Your task to perform on an android device: open app "McDonald's" (install if not already installed), go to login, and select forgot password Image 0: 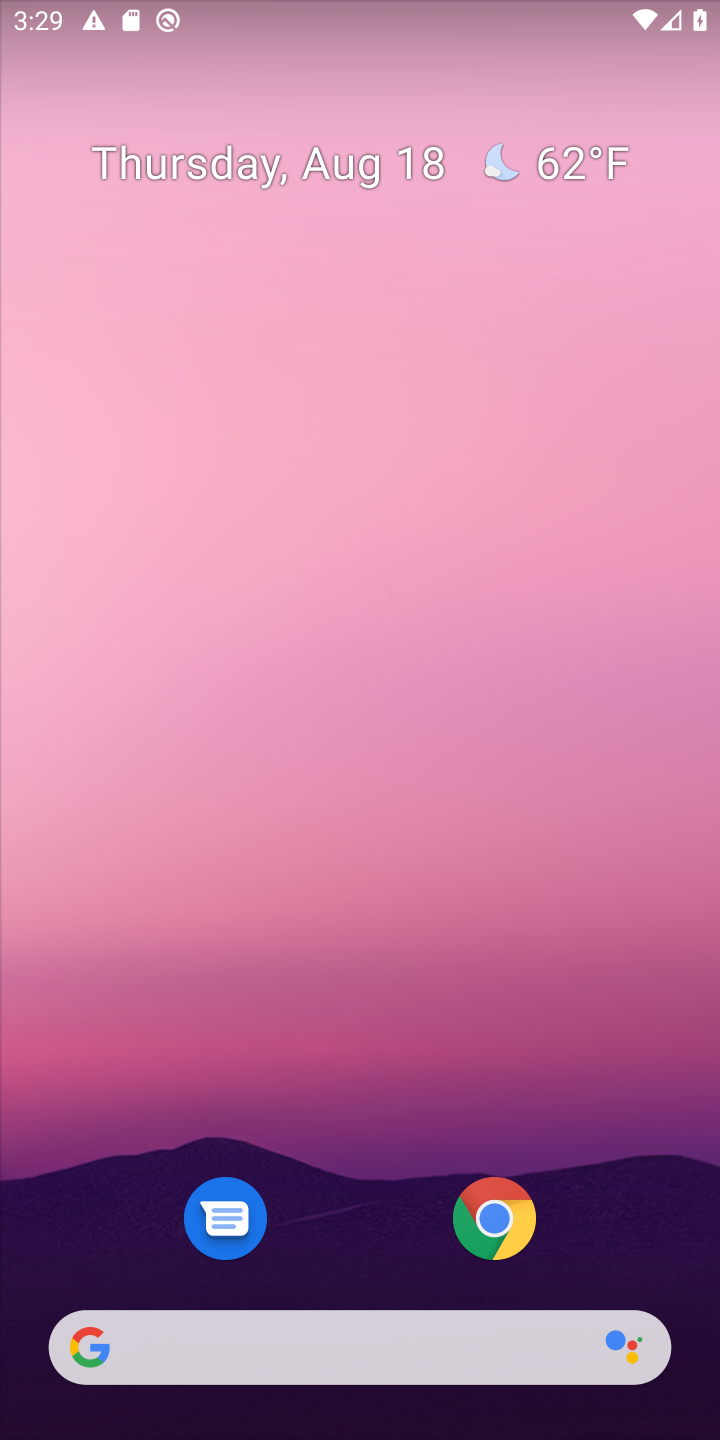
Step 0: drag from (350, 1144) to (362, 405)
Your task to perform on an android device: open app "McDonald's" (install if not already installed), go to login, and select forgot password Image 1: 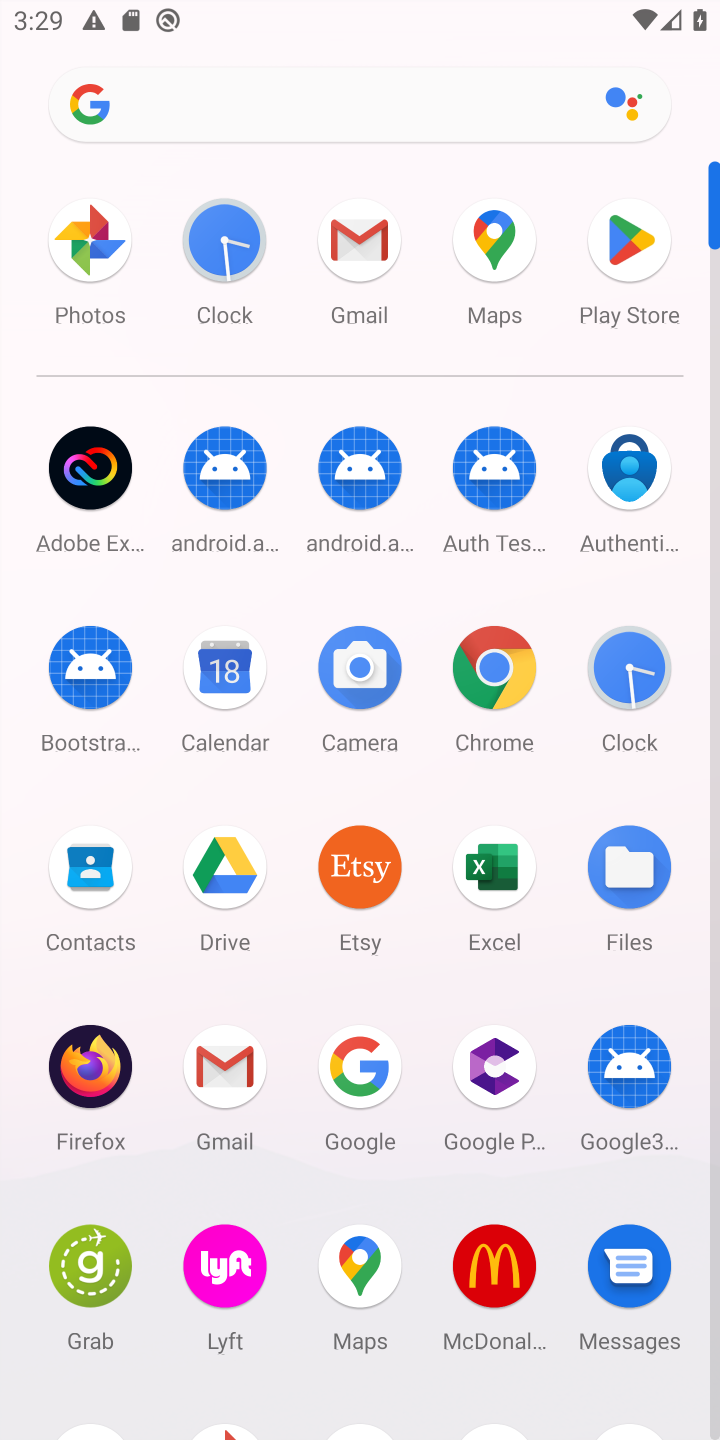
Step 1: click (600, 244)
Your task to perform on an android device: open app "McDonald's" (install if not already installed), go to login, and select forgot password Image 2: 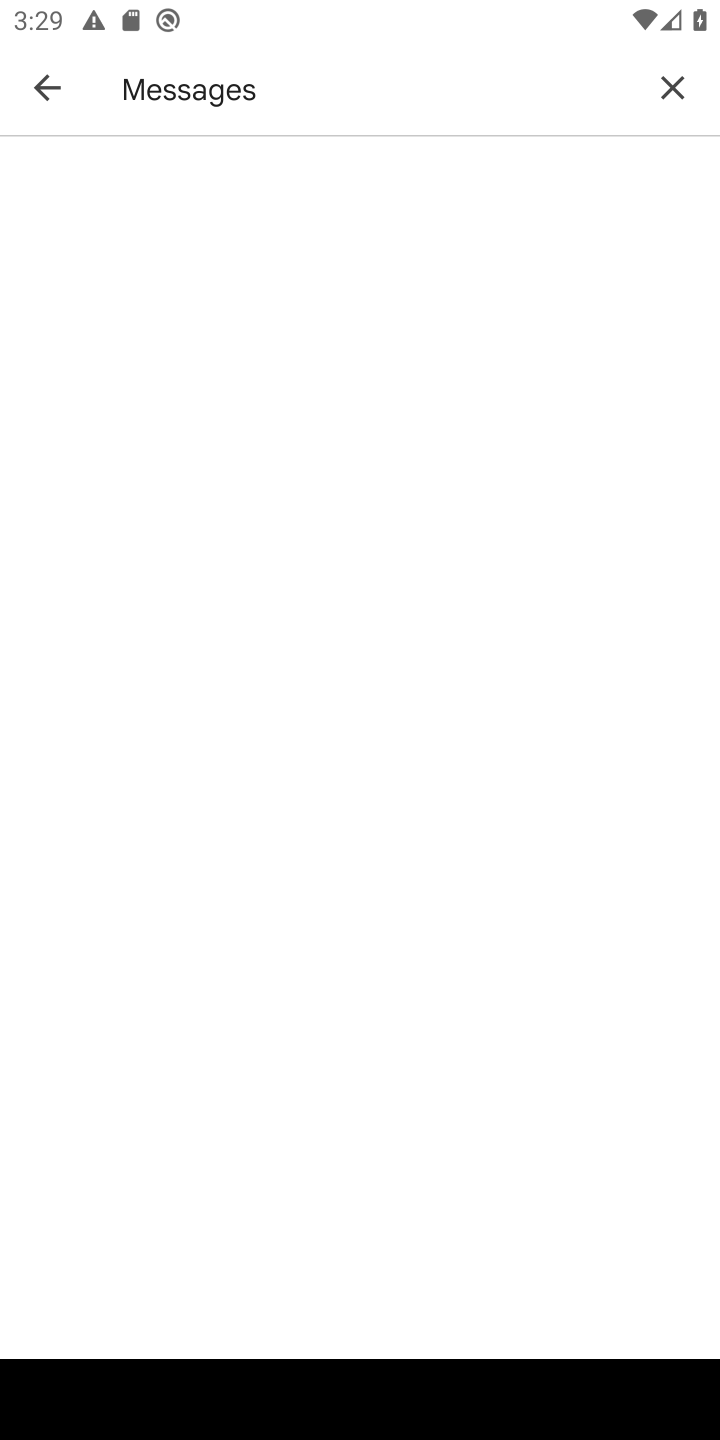
Step 2: click (660, 88)
Your task to perform on an android device: open app "McDonald's" (install if not already installed), go to login, and select forgot password Image 3: 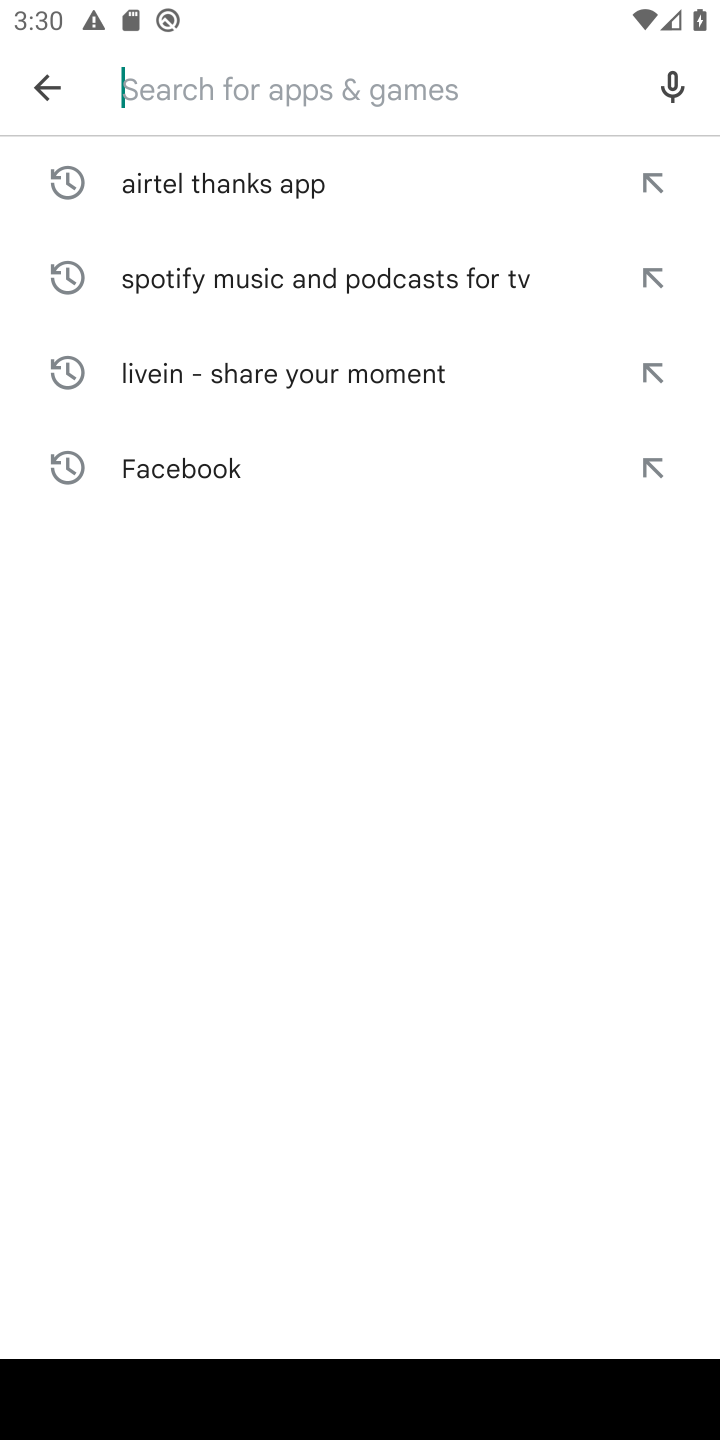
Step 3: type "McDonald's"
Your task to perform on an android device: open app "McDonald's" (install if not already installed), go to login, and select forgot password Image 4: 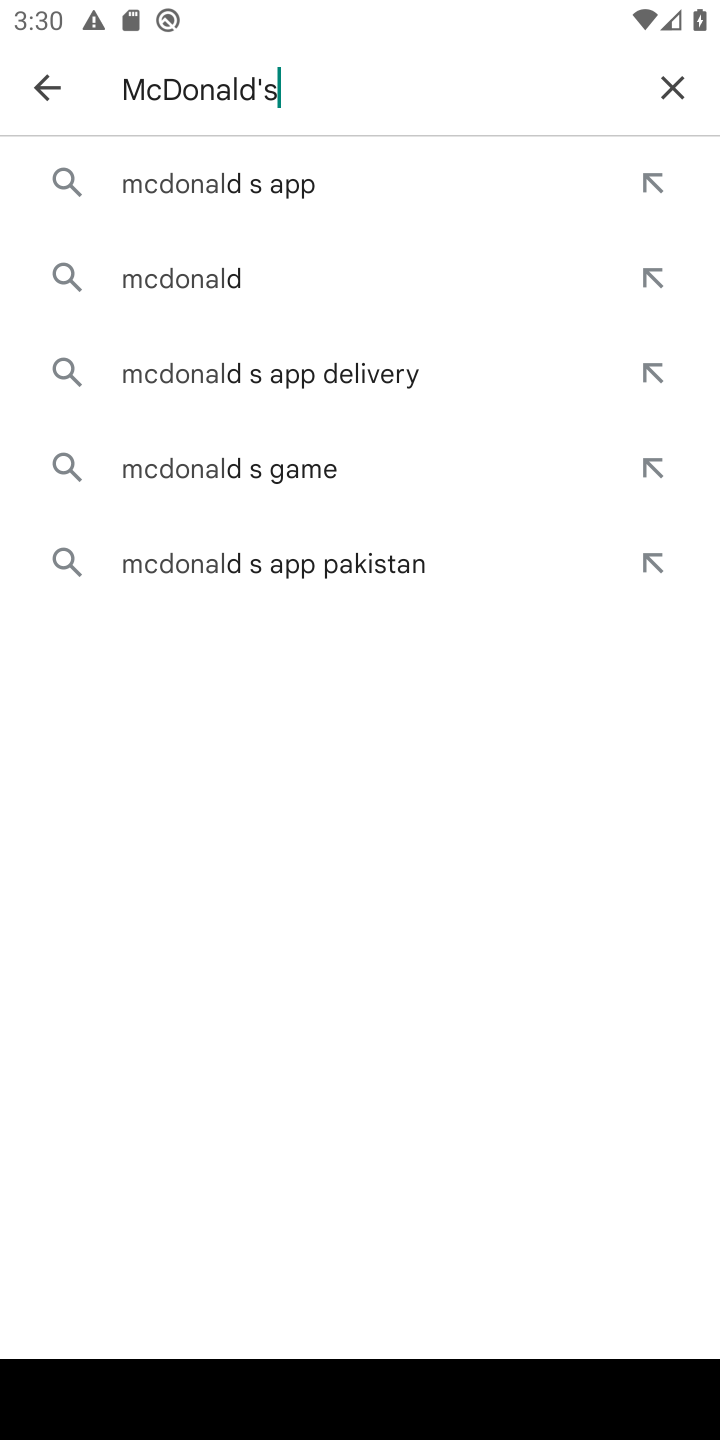
Step 4: type ""
Your task to perform on an android device: open app "McDonald's" (install if not already installed), go to login, and select forgot password Image 5: 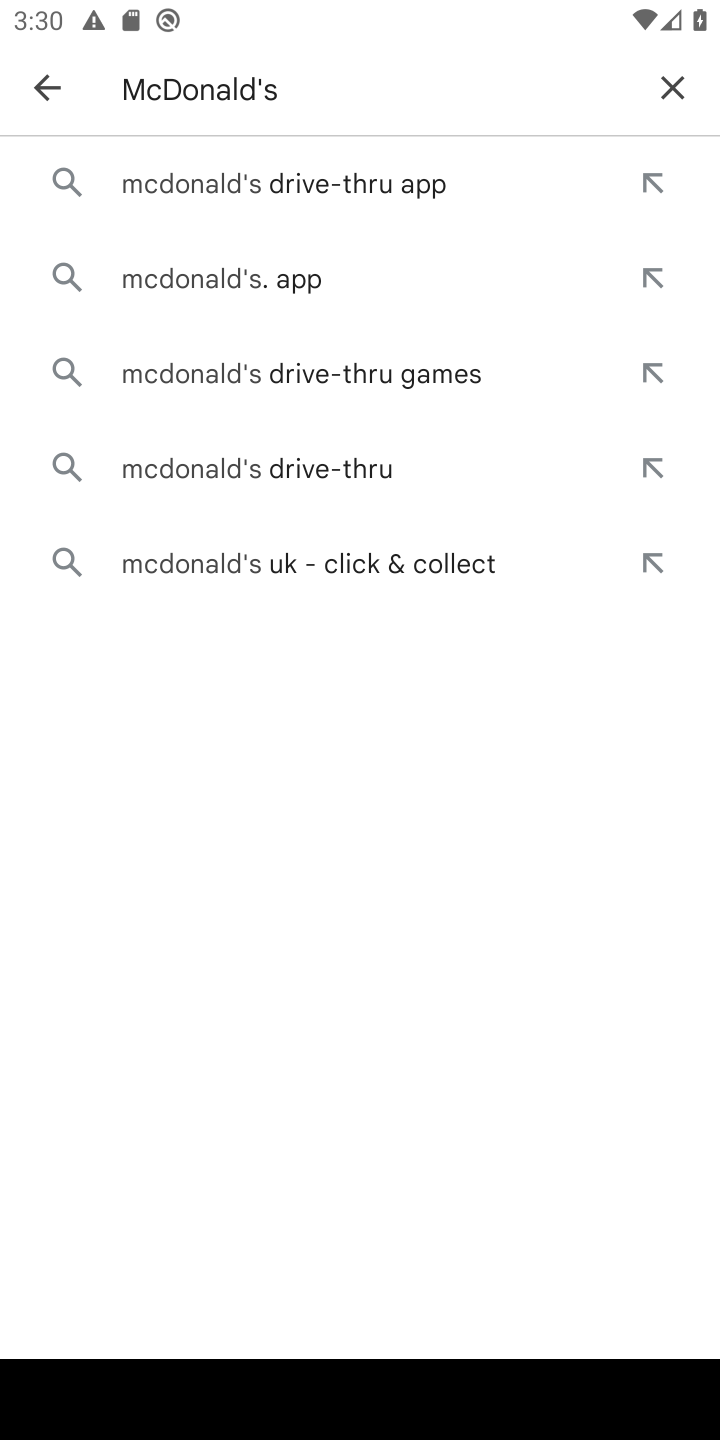
Step 5: click (348, 270)
Your task to perform on an android device: open app "McDonald's" (install if not already installed), go to login, and select forgot password Image 6: 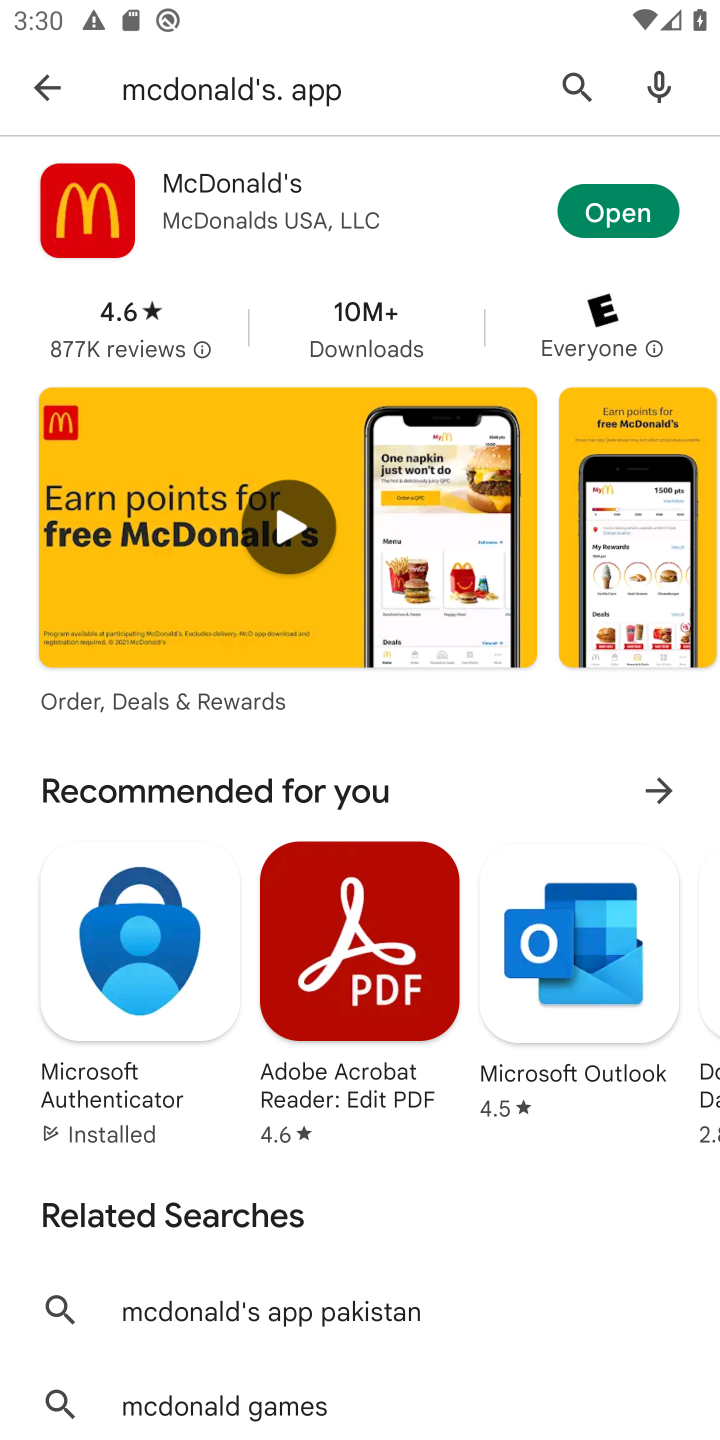
Step 6: click (625, 191)
Your task to perform on an android device: open app "McDonald's" (install if not already installed), go to login, and select forgot password Image 7: 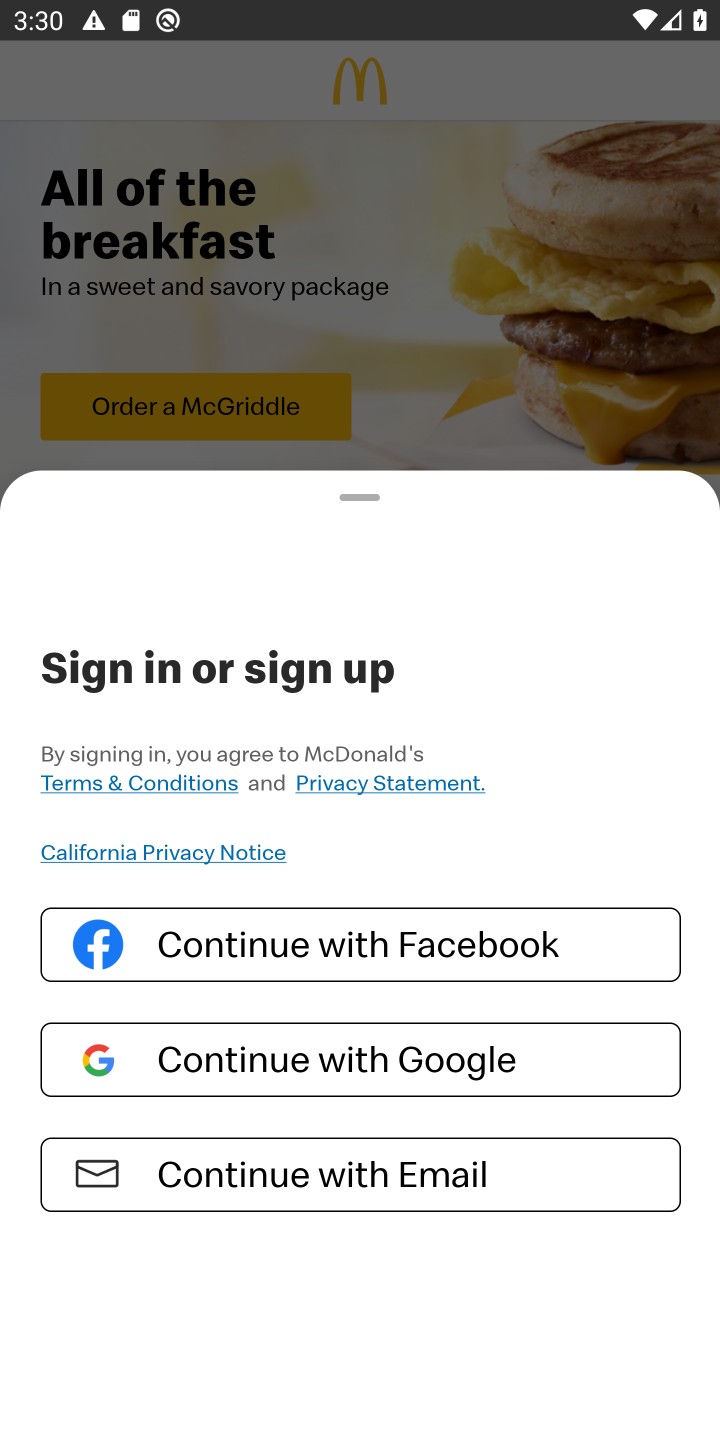
Step 7: task complete